Your task to perform on an android device: allow notifications from all sites in the chrome app Image 0: 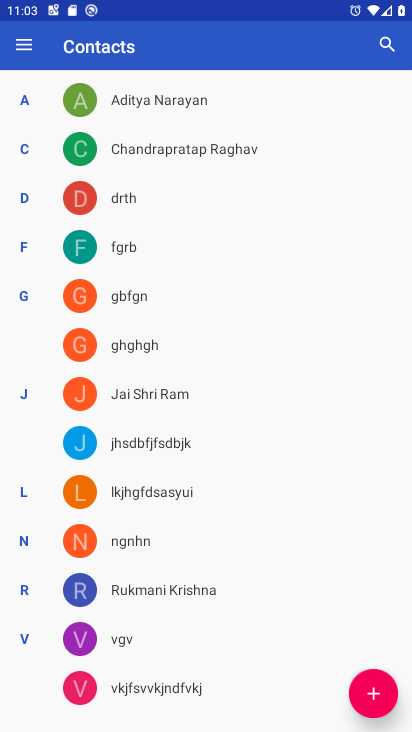
Step 0: drag from (205, 546) to (223, 291)
Your task to perform on an android device: allow notifications from all sites in the chrome app Image 1: 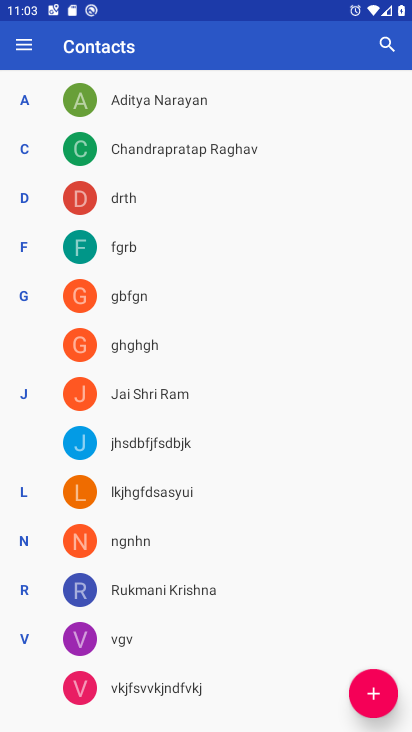
Step 1: press home button
Your task to perform on an android device: allow notifications from all sites in the chrome app Image 2: 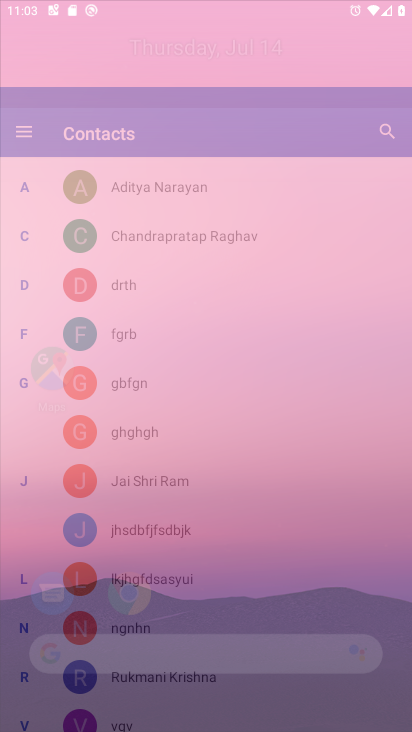
Step 2: drag from (226, 572) to (232, 221)
Your task to perform on an android device: allow notifications from all sites in the chrome app Image 3: 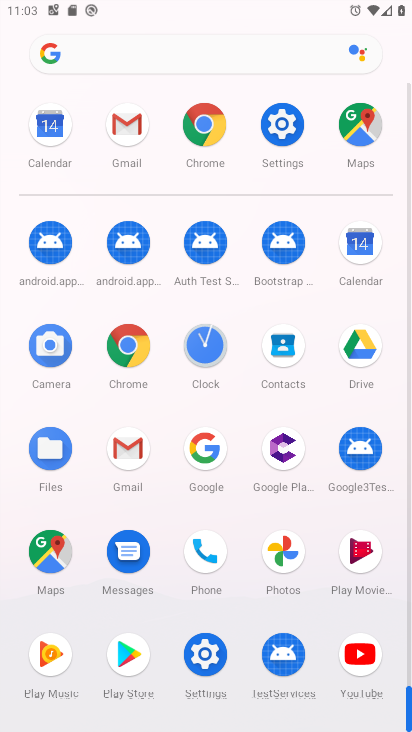
Step 3: click (134, 344)
Your task to perform on an android device: allow notifications from all sites in the chrome app Image 4: 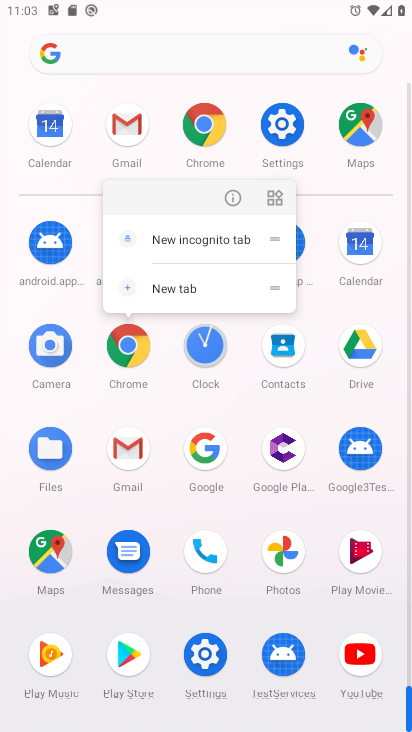
Step 4: click (226, 199)
Your task to perform on an android device: allow notifications from all sites in the chrome app Image 5: 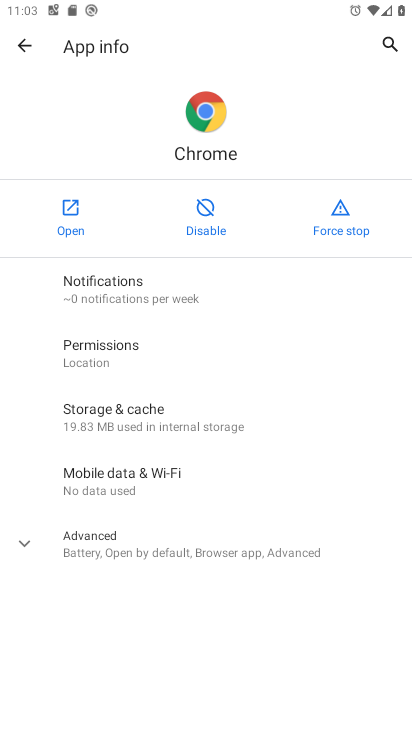
Step 5: click (62, 208)
Your task to perform on an android device: allow notifications from all sites in the chrome app Image 6: 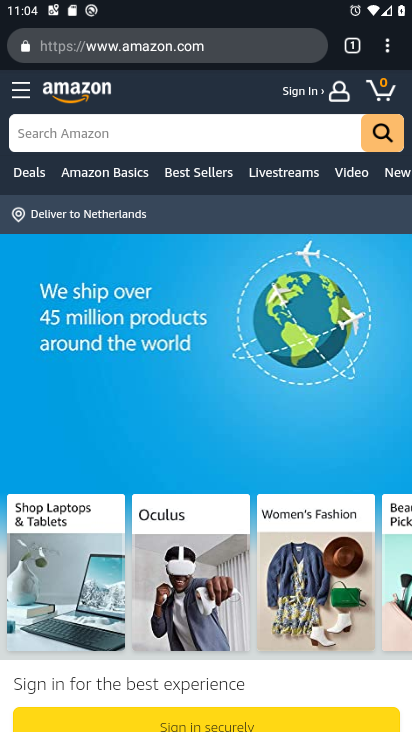
Step 6: click (388, 31)
Your task to perform on an android device: allow notifications from all sites in the chrome app Image 7: 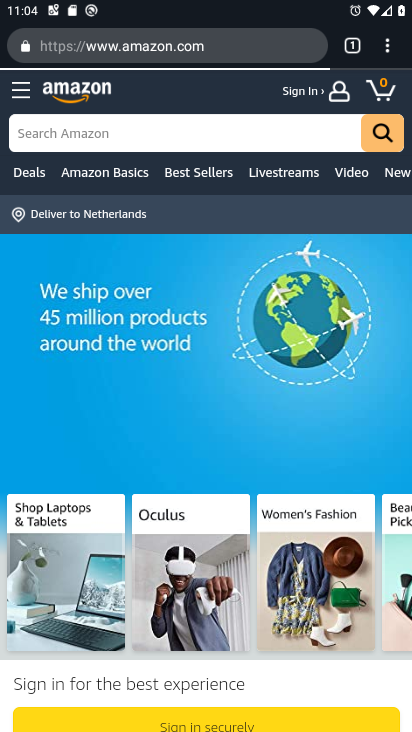
Step 7: drag from (389, 41) to (218, 545)
Your task to perform on an android device: allow notifications from all sites in the chrome app Image 8: 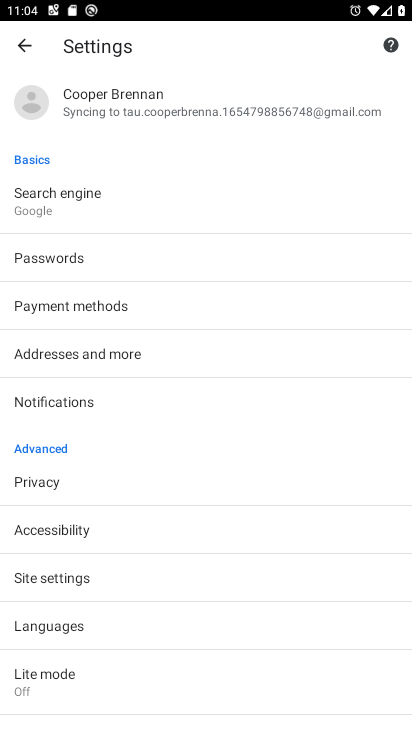
Step 8: click (50, 581)
Your task to perform on an android device: allow notifications from all sites in the chrome app Image 9: 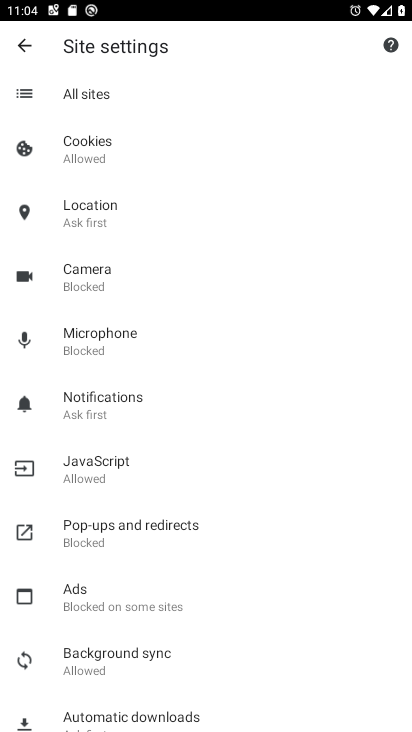
Step 9: click (115, 153)
Your task to perform on an android device: allow notifications from all sites in the chrome app Image 10: 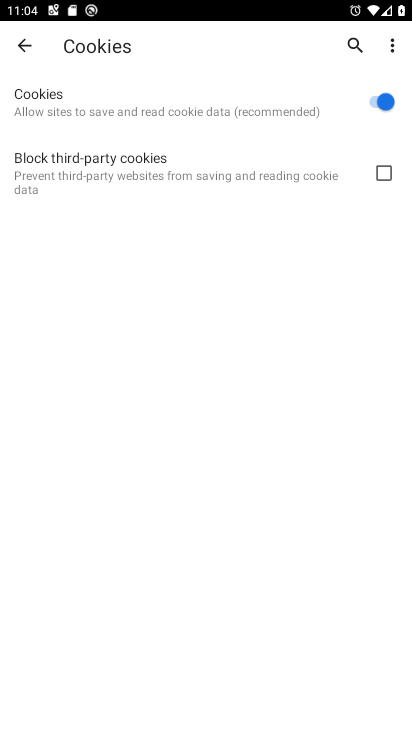
Step 10: task complete